Your task to perform on an android device: open app "Skype" Image 0: 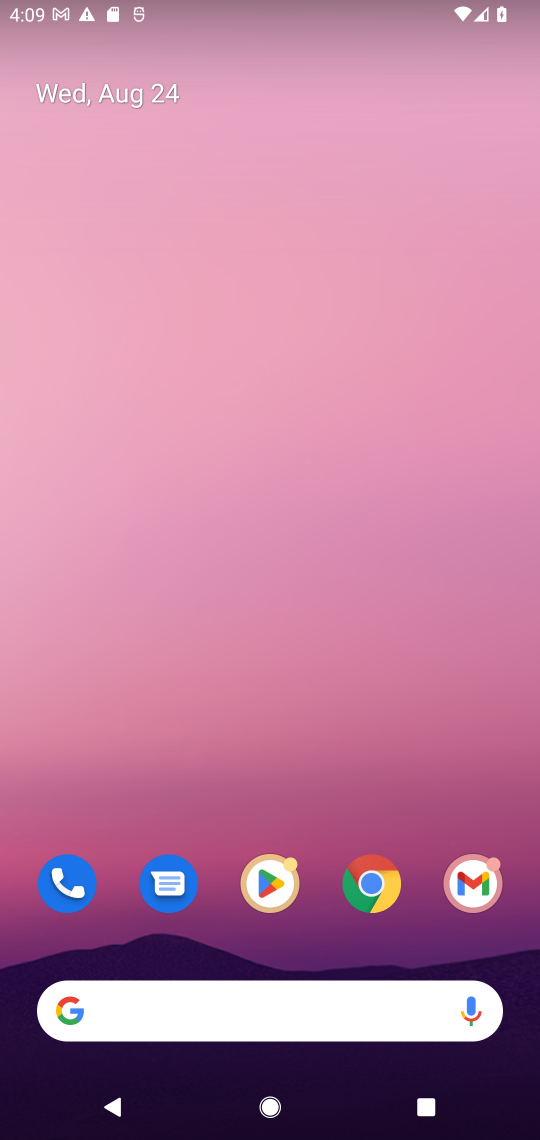
Step 0: drag from (175, 987) to (71, 299)
Your task to perform on an android device: open app "Skype" Image 1: 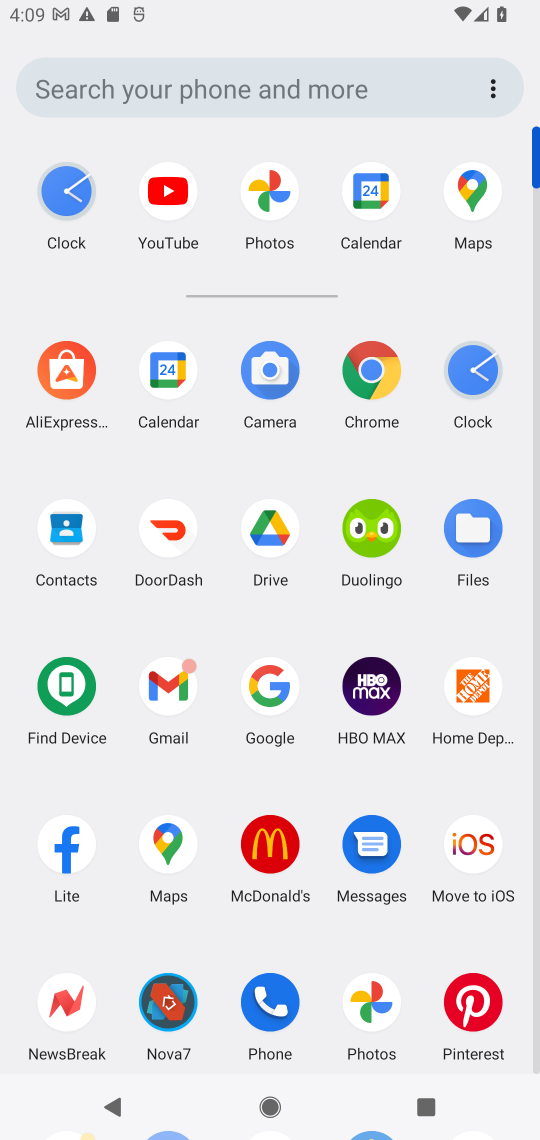
Step 1: drag from (235, 1041) to (143, 407)
Your task to perform on an android device: open app "Skype" Image 2: 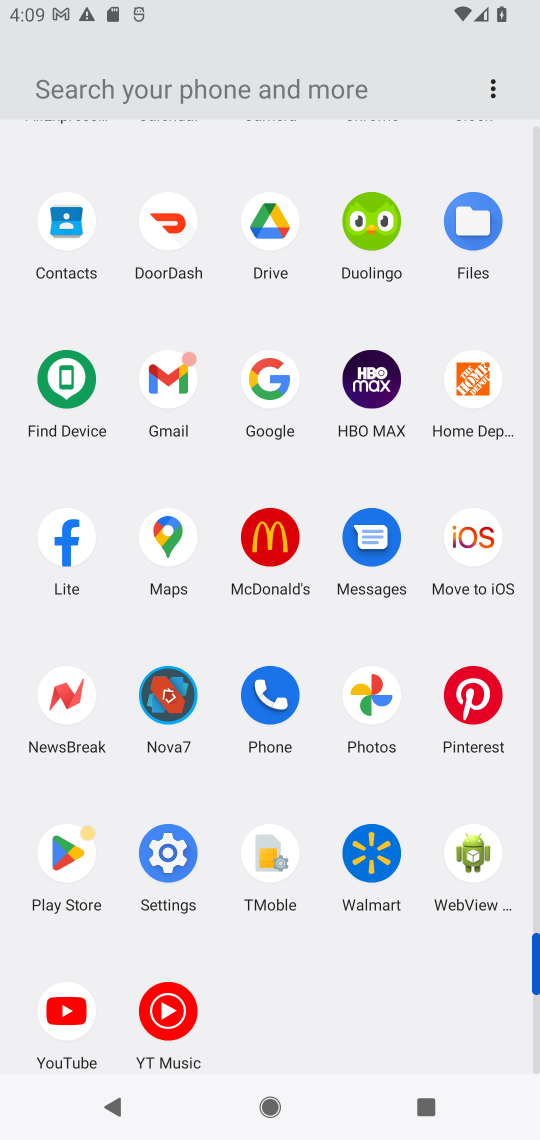
Step 2: click (60, 826)
Your task to perform on an android device: open app "Skype" Image 3: 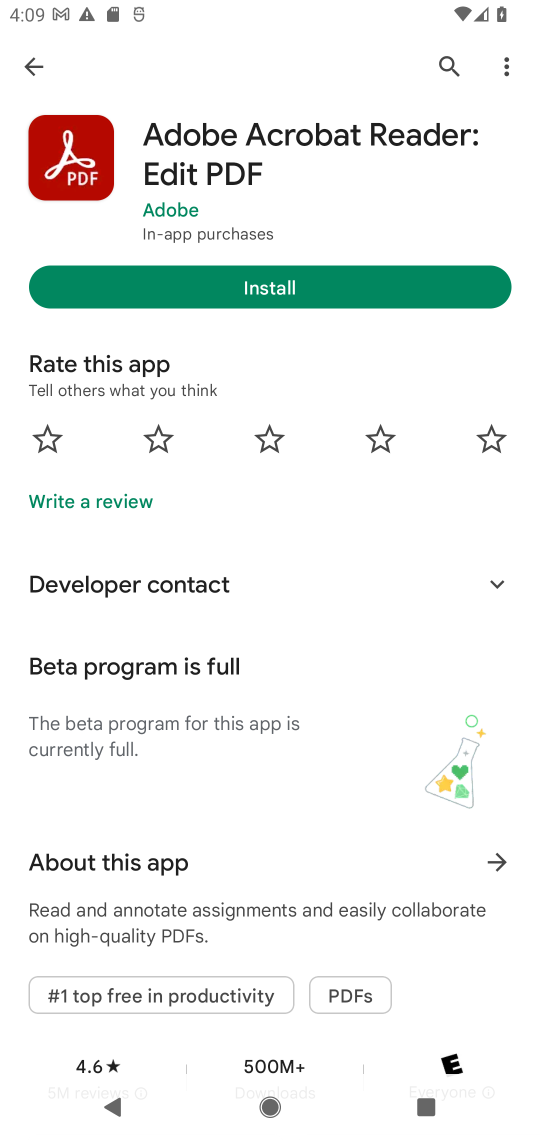
Step 3: click (453, 64)
Your task to perform on an android device: open app "Skype" Image 4: 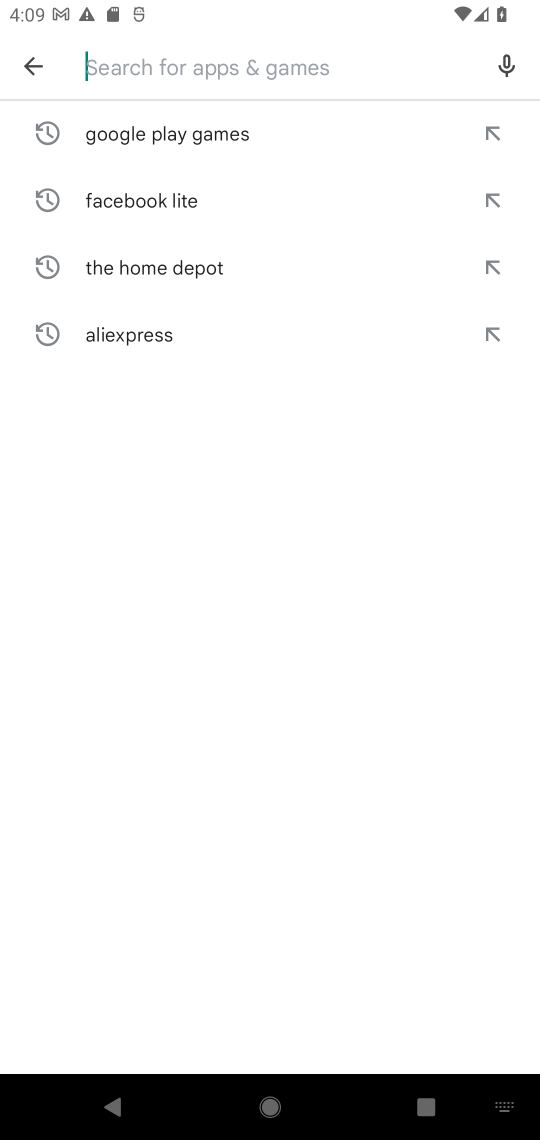
Step 4: type "Skype"
Your task to perform on an android device: open app "Skype" Image 5: 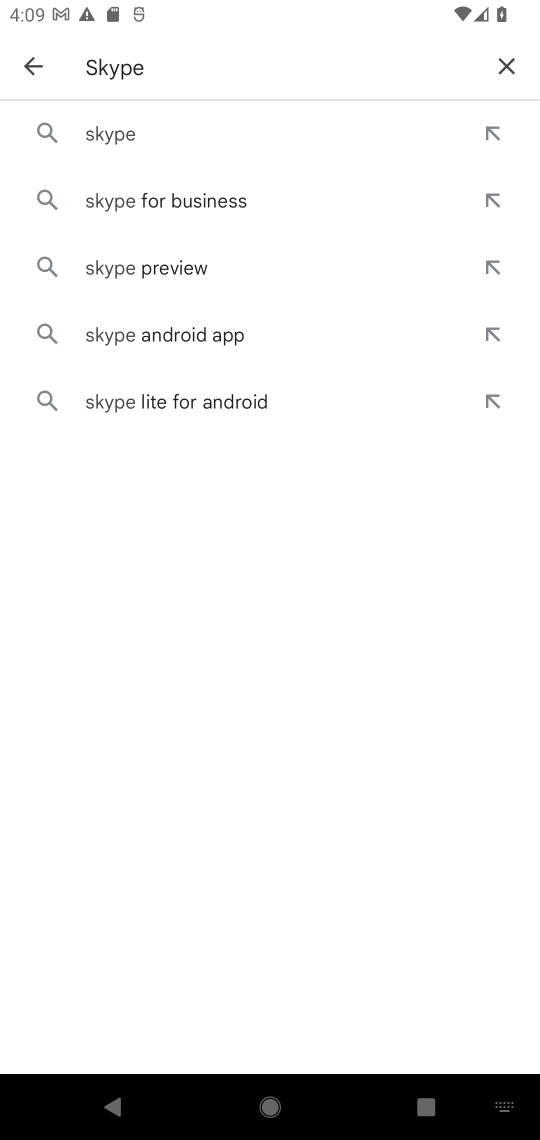
Step 5: click (159, 134)
Your task to perform on an android device: open app "Skype" Image 6: 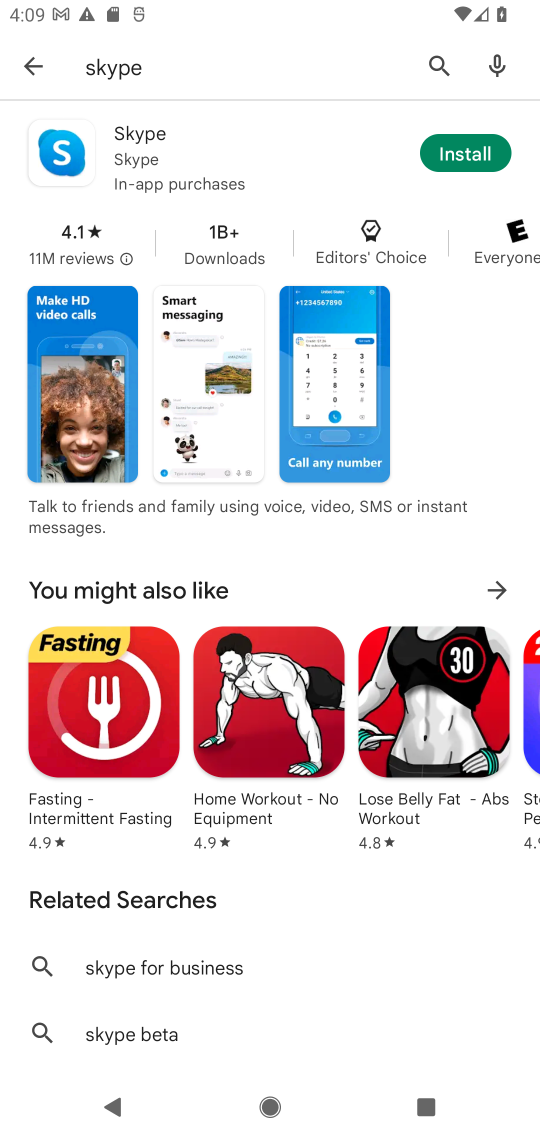
Step 6: click (450, 156)
Your task to perform on an android device: open app "Skype" Image 7: 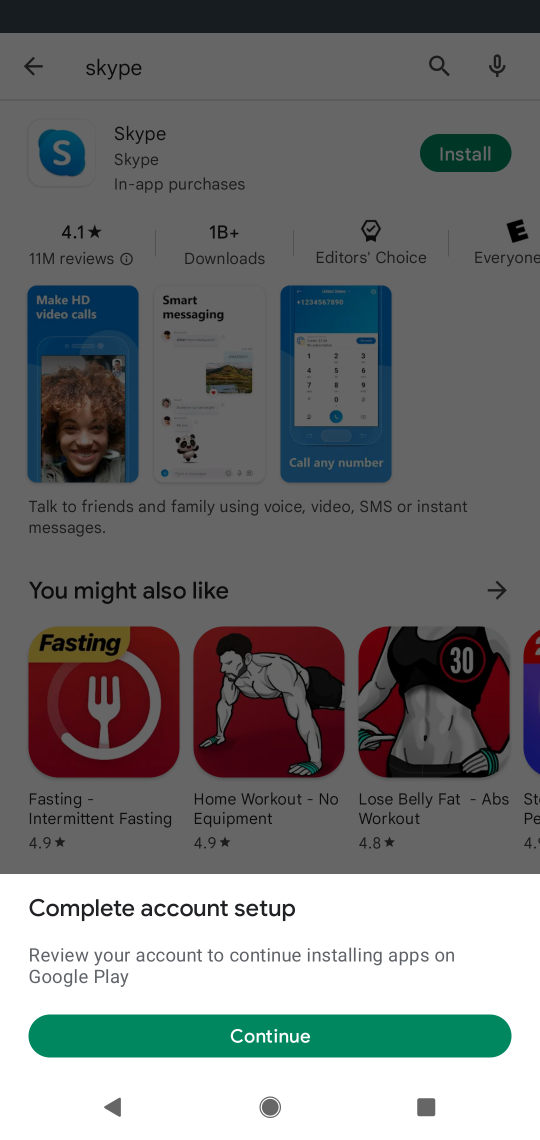
Step 7: click (218, 1032)
Your task to perform on an android device: open app "Skype" Image 8: 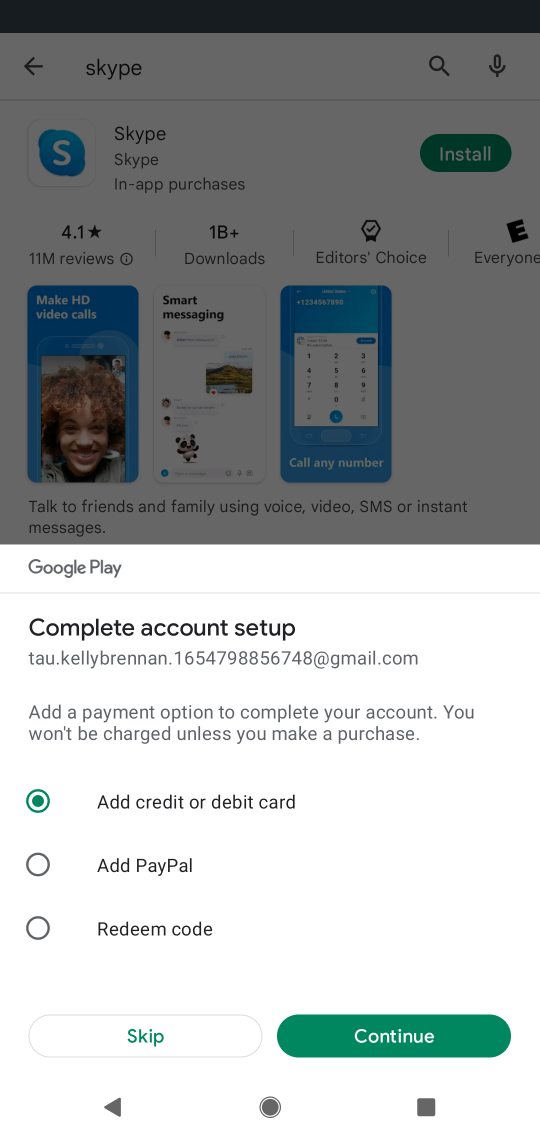
Step 8: click (140, 1040)
Your task to perform on an android device: open app "Skype" Image 9: 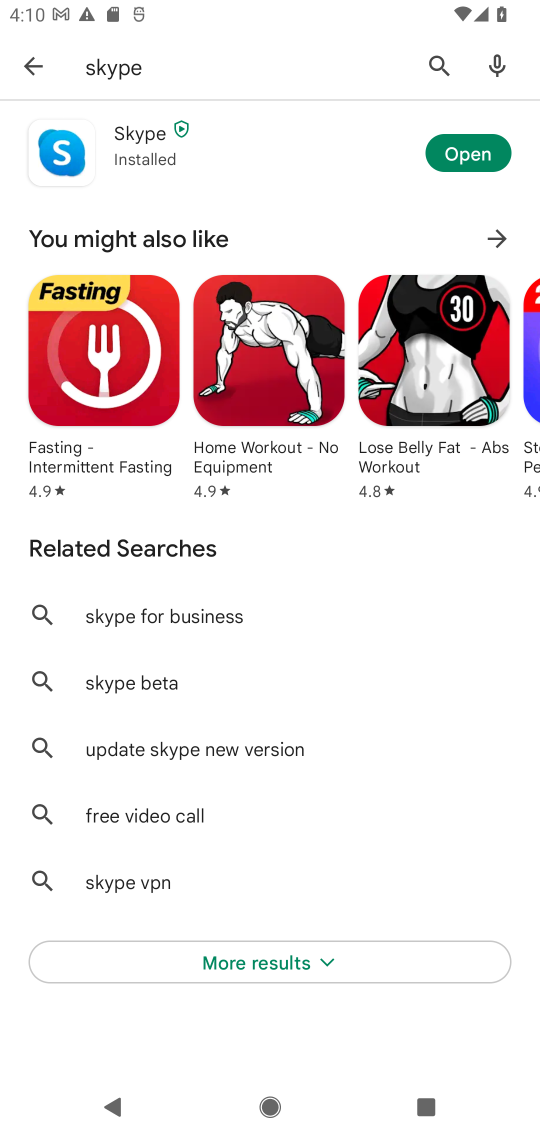
Step 9: click (455, 147)
Your task to perform on an android device: open app "Skype" Image 10: 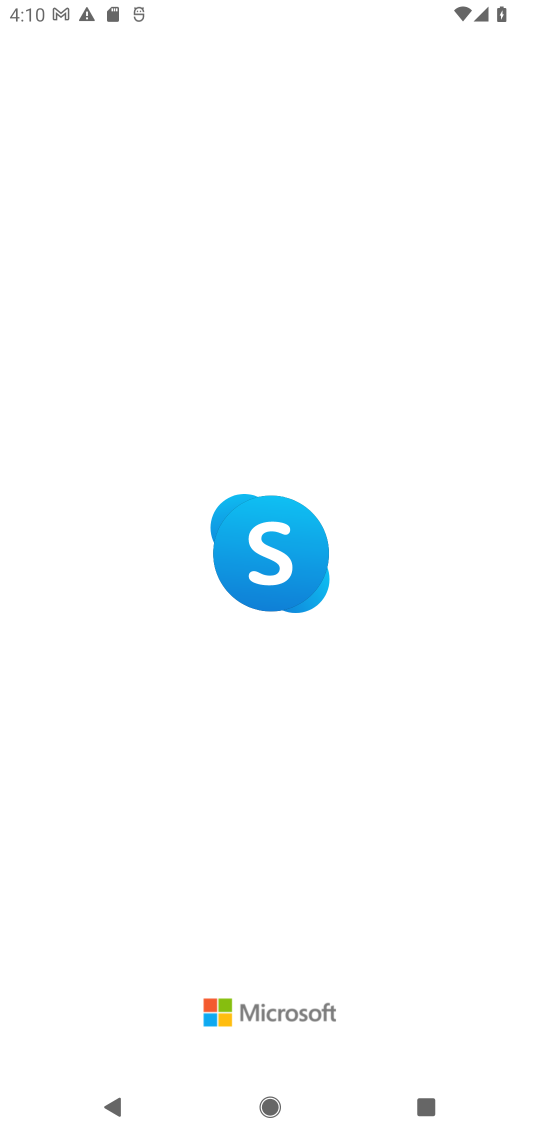
Step 10: task complete